Your task to perform on an android device: Open eBay Image 0: 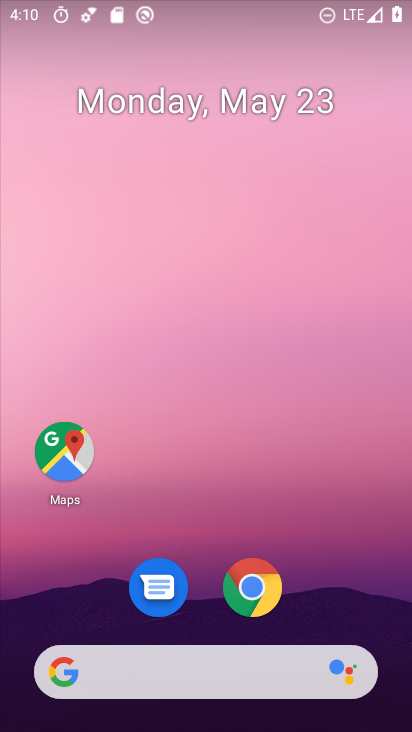
Step 0: click (247, 584)
Your task to perform on an android device: Open eBay Image 1: 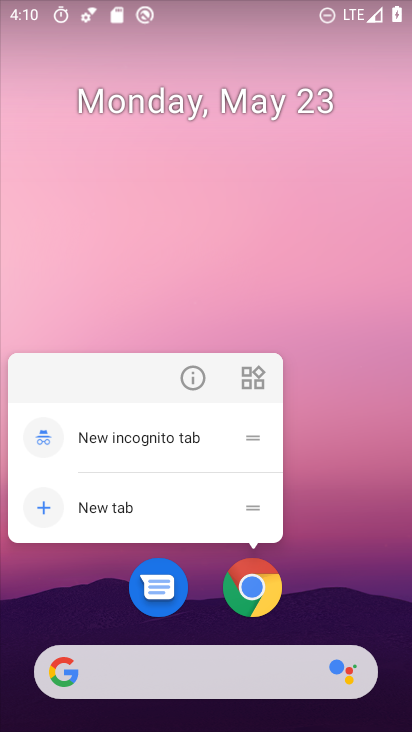
Step 1: click (251, 577)
Your task to perform on an android device: Open eBay Image 2: 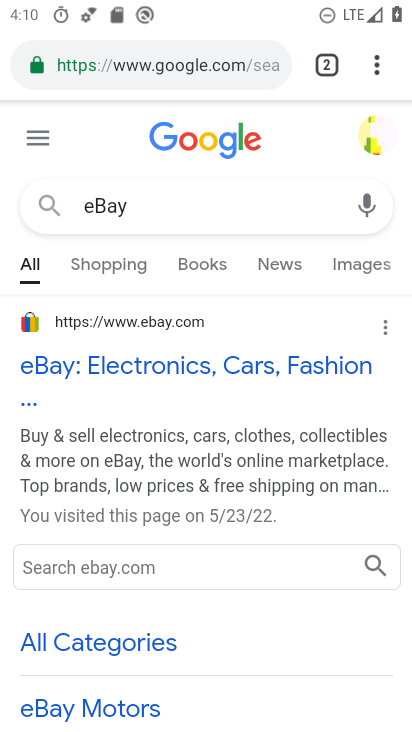
Step 2: click (212, 355)
Your task to perform on an android device: Open eBay Image 3: 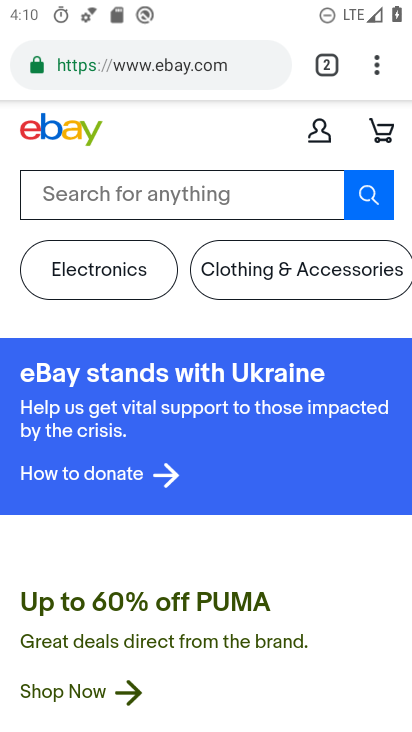
Step 3: task complete